Your task to perform on an android device: Open Google Chrome and open the bookmarks view Image 0: 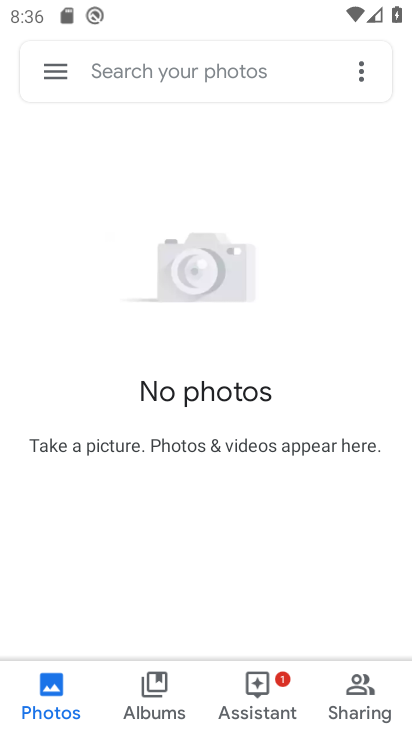
Step 0: press home button
Your task to perform on an android device: Open Google Chrome and open the bookmarks view Image 1: 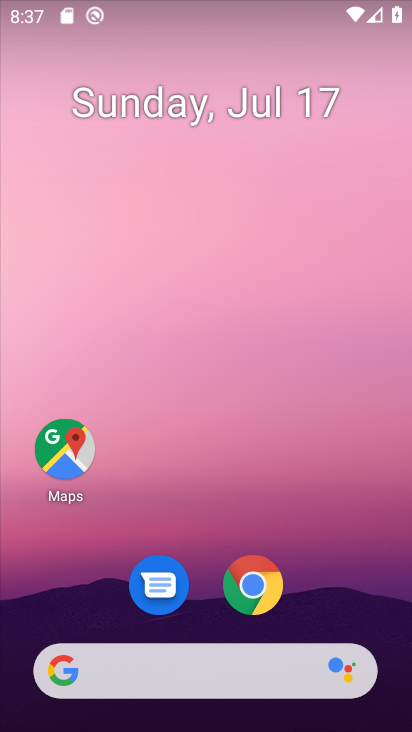
Step 1: click (258, 590)
Your task to perform on an android device: Open Google Chrome and open the bookmarks view Image 2: 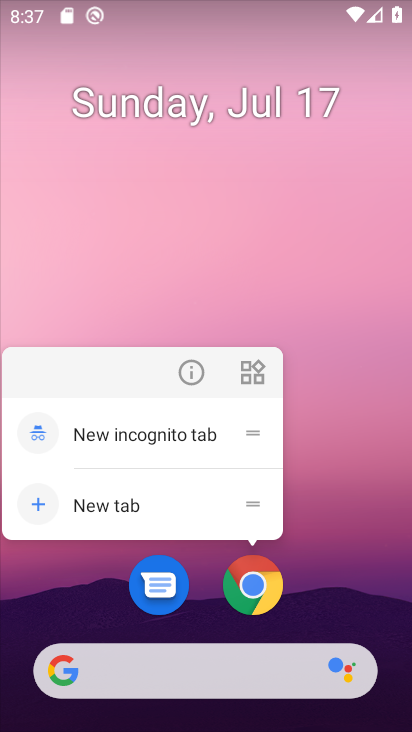
Step 2: click (258, 592)
Your task to perform on an android device: Open Google Chrome and open the bookmarks view Image 3: 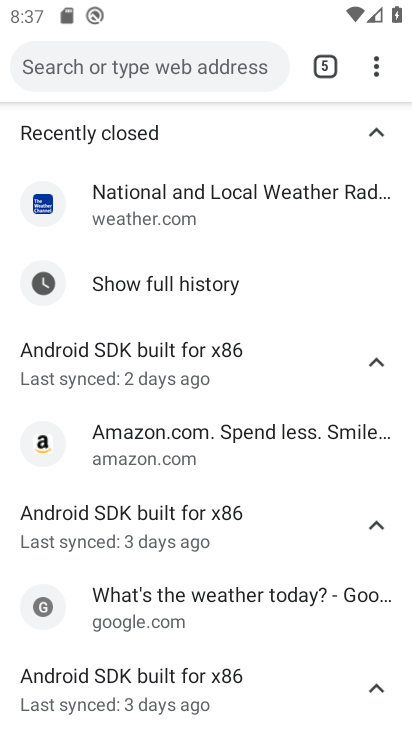
Step 3: click (378, 69)
Your task to perform on an android device: Open Google Chrome and open the bookmarks view Image 4: 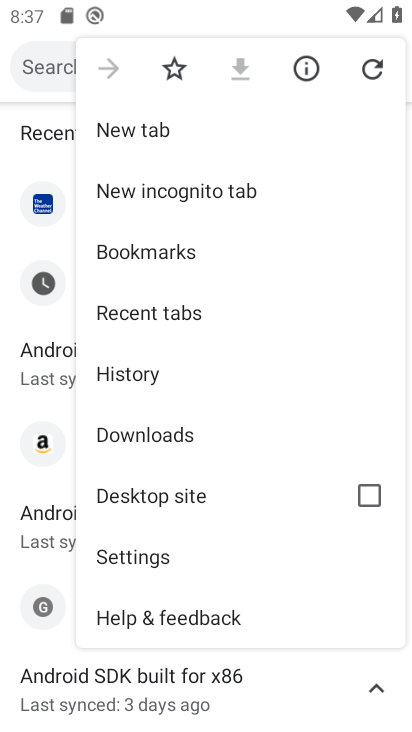
Step 4: click (181, 254)
Your task to perform on an android device: Open Google Chrome and open the bookmarks view Image 5: 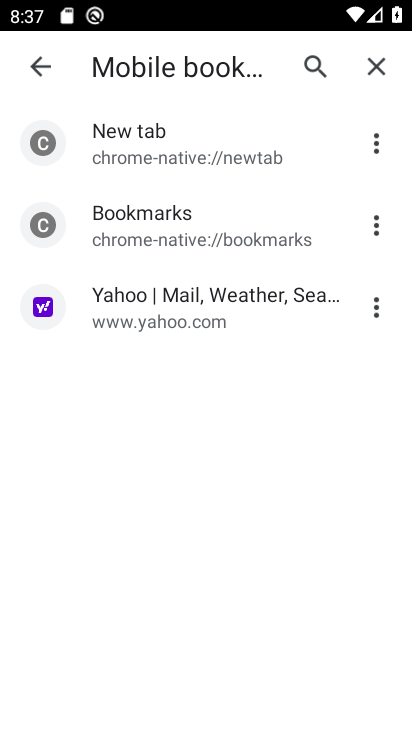
Step 5: task complete